Your task to perform on an android device: Show me recent news Image 0: 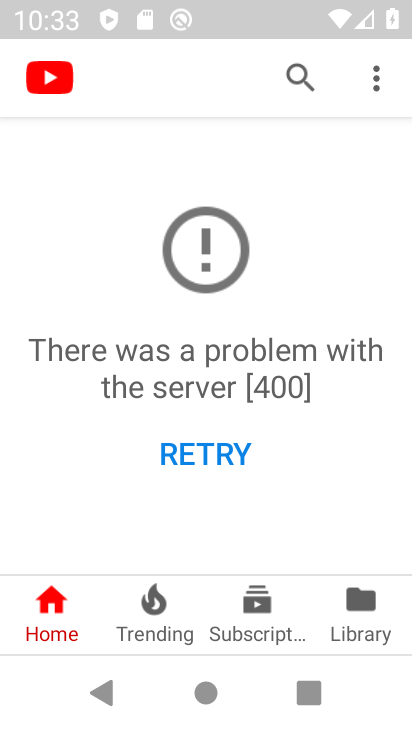
Step 0: press home button
Your task to perform on an android device: Show me recent news Image 1: 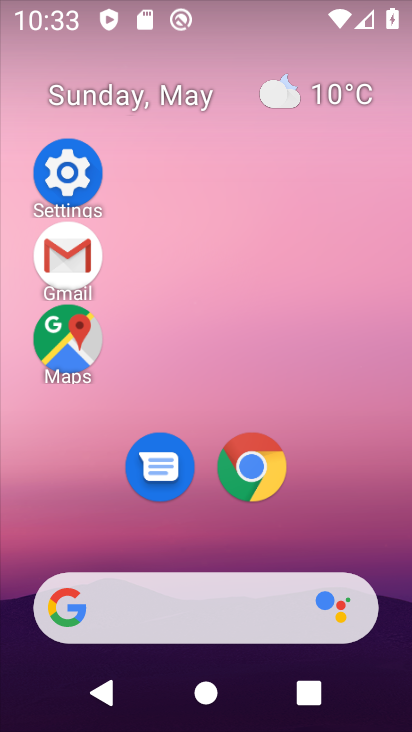
Step 1: drag from (203, 511) to (279, 101)
Your task to perform on an android device: Show me recent news Image 2: 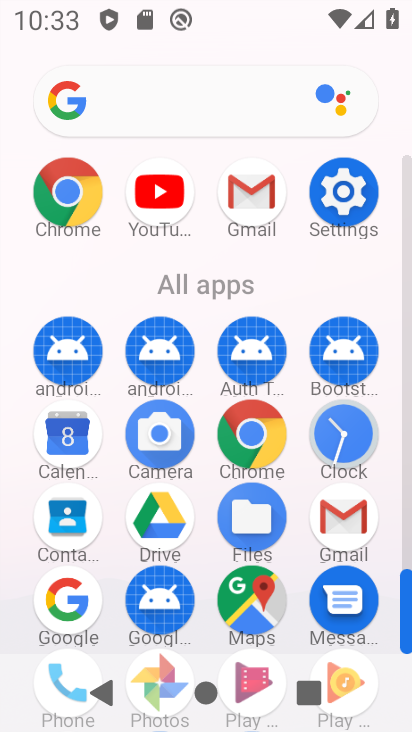
Step 2: drag from (271, 497) to (278, 181)
Your task to perform on an android device: Show me recent news Image 3: 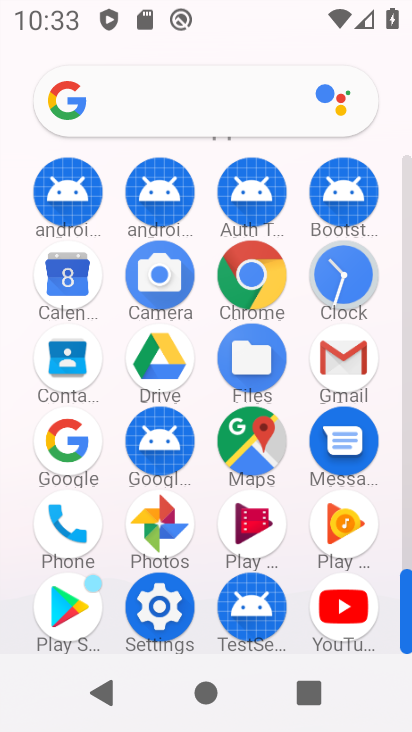
Step 3: drag from (75, 445) to (161, 273)
Your task to perform on an android device: Show me recent news Image 4: 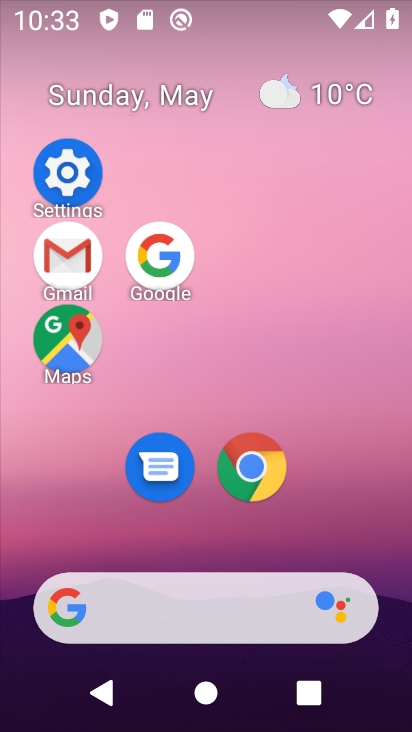
Step 4: click (148, 258)
Your task to perform on an android device: Show me recent news Image 5: 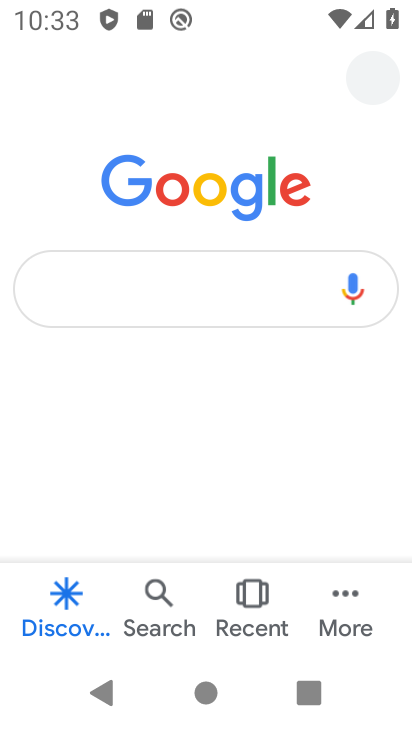
Step 5: click (175, 300)
Your task to perform on an android device: Show me recent news Image 6: 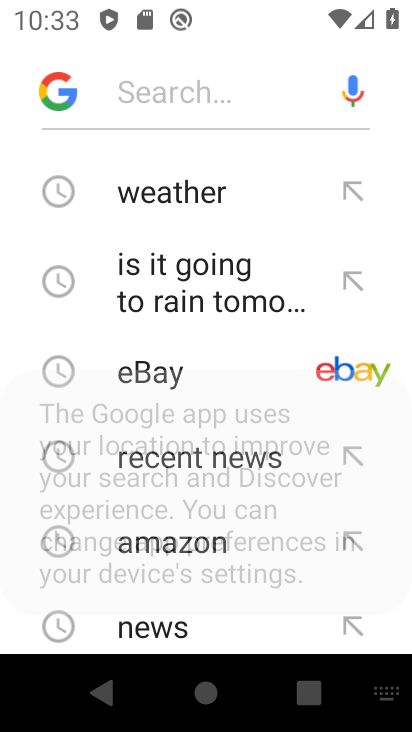
Step 6: drag from (197, 314) to (156, 116)
Your task to perform on an android device: Show me recent news Image 7: 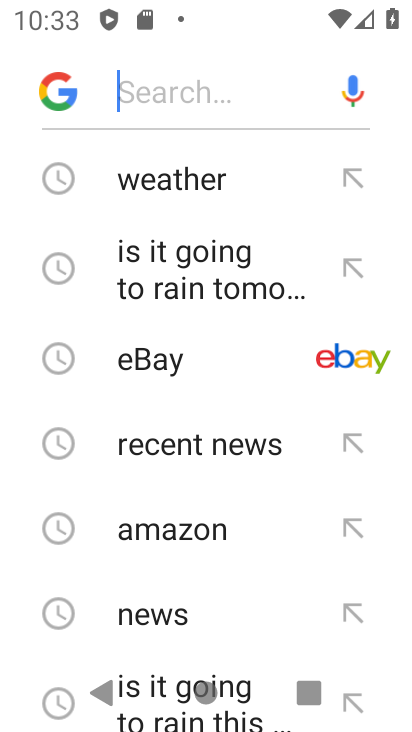
Step 7: click (202, 445)
Your task to perform on an android device: Show me recent news Image 8: 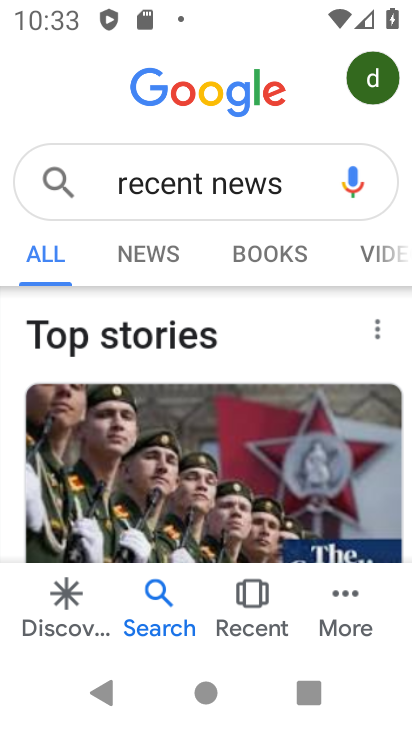
Step 8: task complete